Your task to perform on an android device: Go to battery settings Image 0: 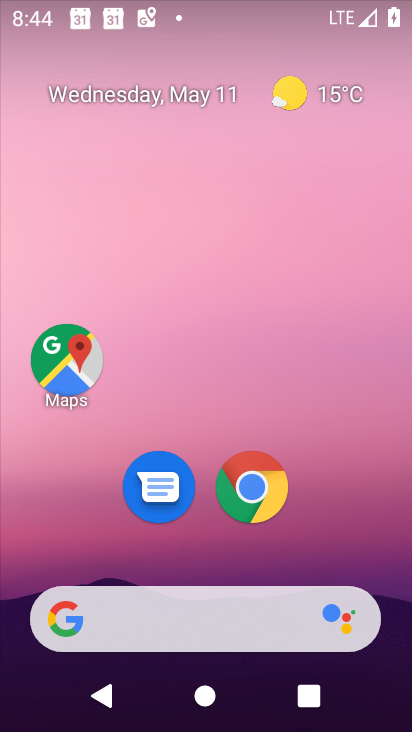
Step 0: drag from (269, 644) to (291, 246)
Your task to perform on an android device: Go to battery settings Image 1: 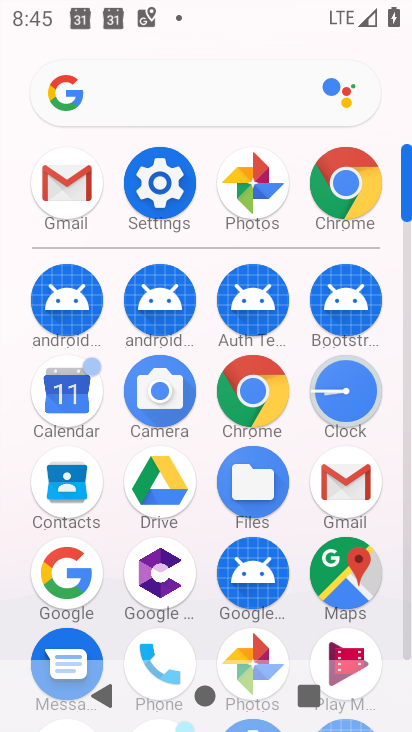
Step 1: click (160, 170)
Your task to perform on an android device: Go to battery settings Image 2: 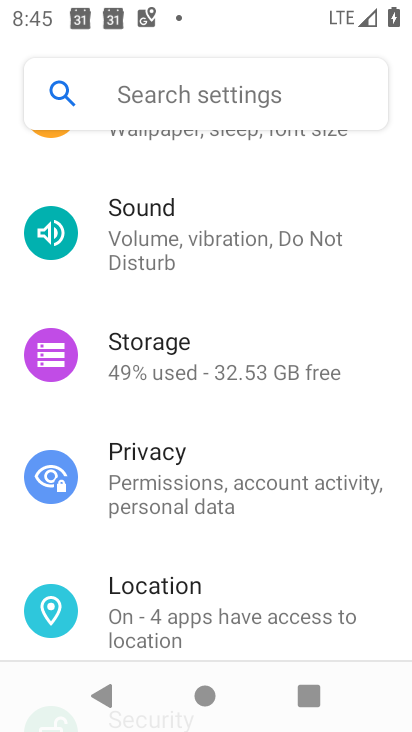
Step 2: drag from (169, 519) to (247, 283)
Your task to perform on an android device: Go to battery settings Image 3: 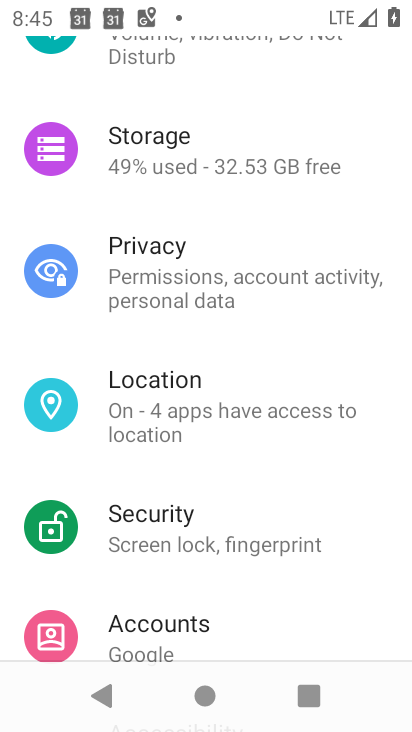
Step 3: drag from (199, 519) to (179, 711)
Your task to perform on an android device: Go to battery settings Image 4: 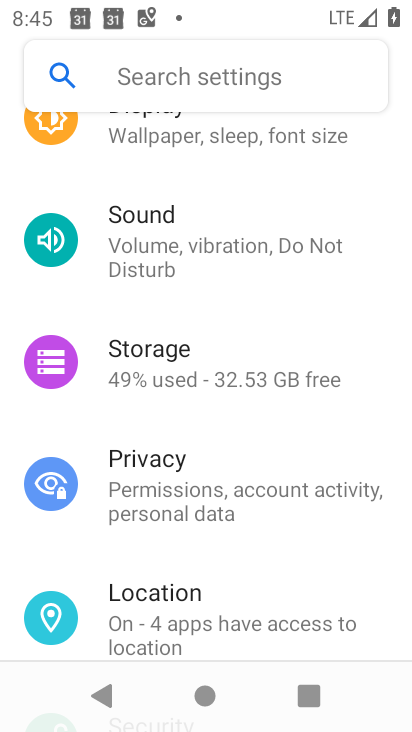
Step 4: drag from (214, 391) to (196, 669)
Your task to perform on an android device: Go to battery settings Image 5: 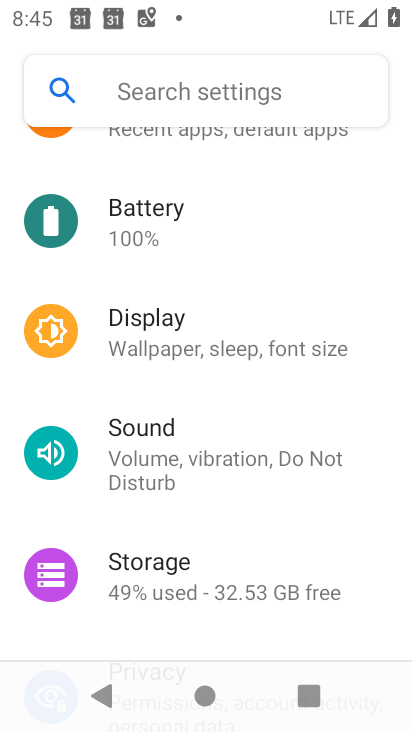
Step 5: click (179, 234)
Your task to perform on an android device: Go to battery settings Image 6: 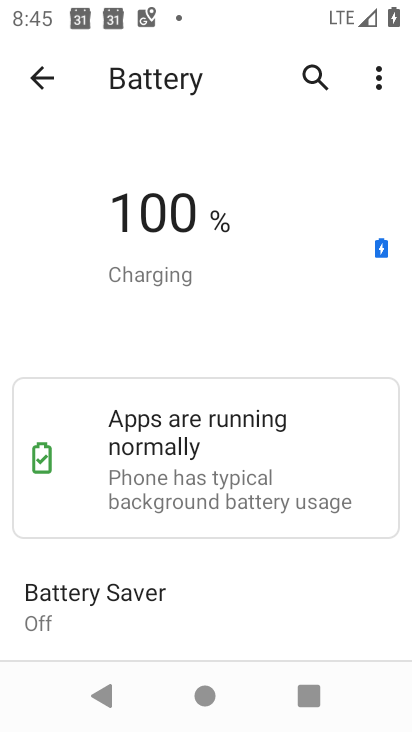
Step 6: task complete